Your task to perform on an android device: manage bookmarks in the chrome app Image 0: 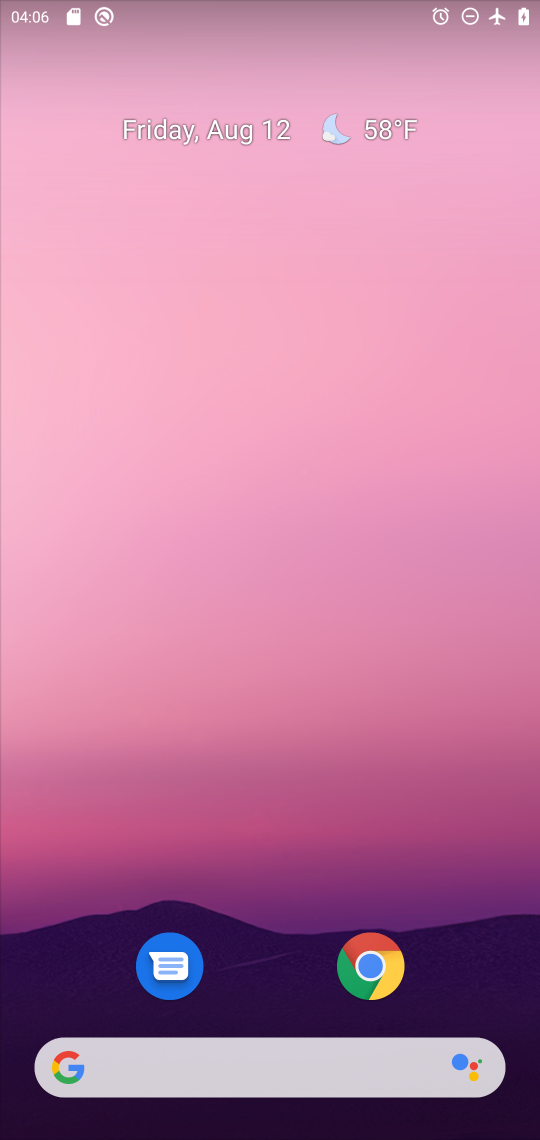
Step 0: drag from (255, 943) to (263, 155)
Your task to perform on an android device: manage bookmarks in the chrome app Image 1: 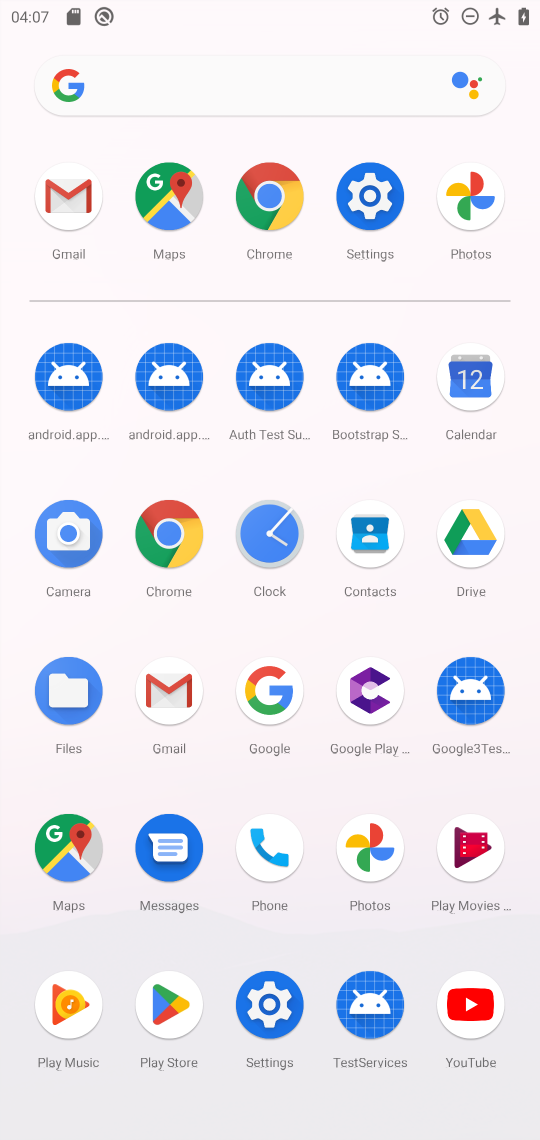
Step 1: click (155, 531)
Your task to perform on an android device: manage bookmarks in the chrome app Image 2: 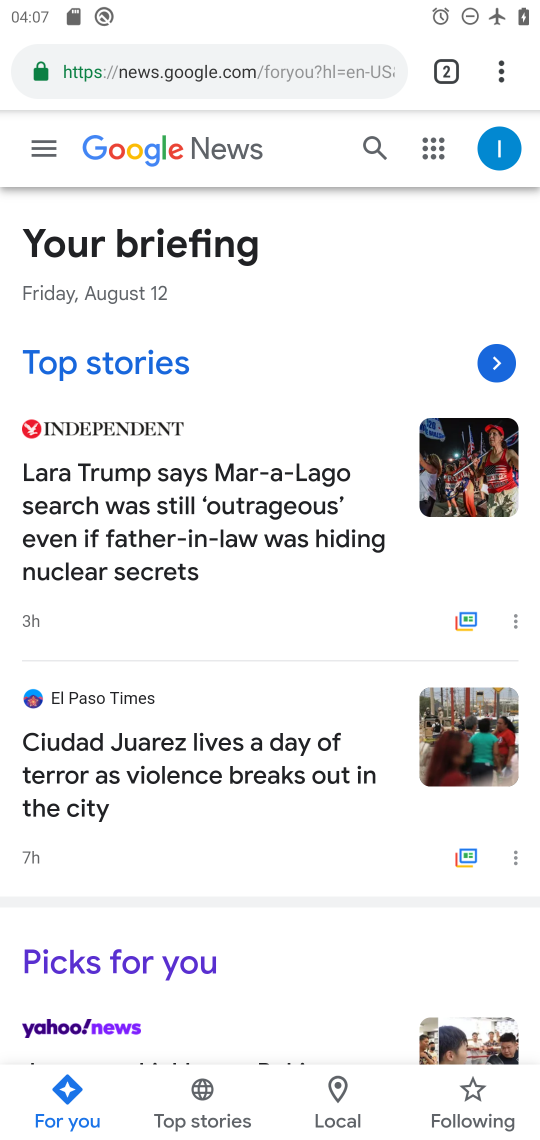
Step 2: drag from (512, 71) to (272, 261)
Your task to perform on an android device: manage bookmarks in the chrome app Image 3: 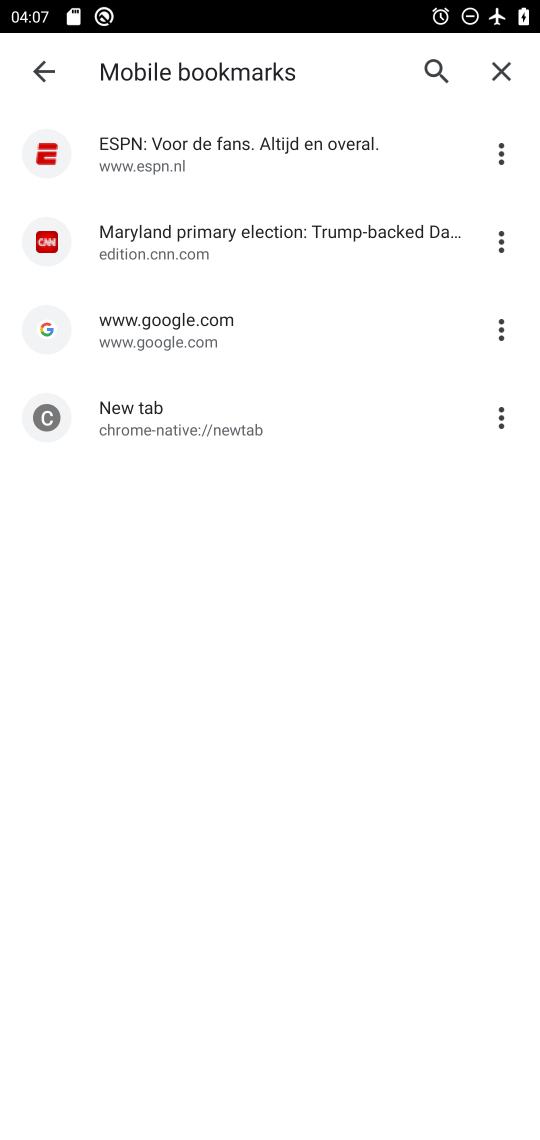
Step 3: click (502, 322)
Your task to perform on an android device: manage bookmarks in the chrome app Image 4: 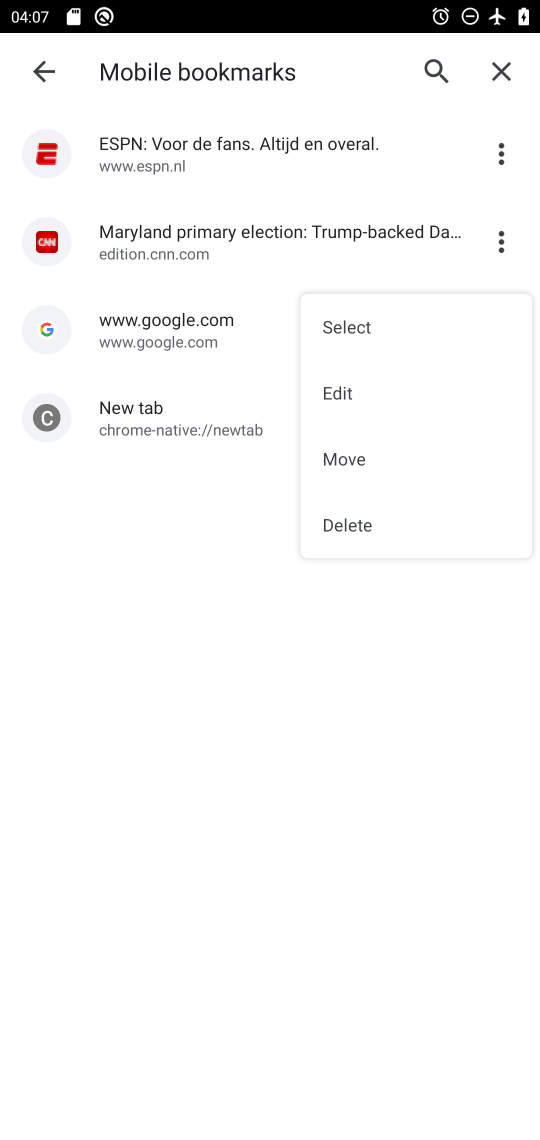
Step 4: click (356, 396)
Your task to perform on an android device: manage bookmarks in the chrome app Image 5: 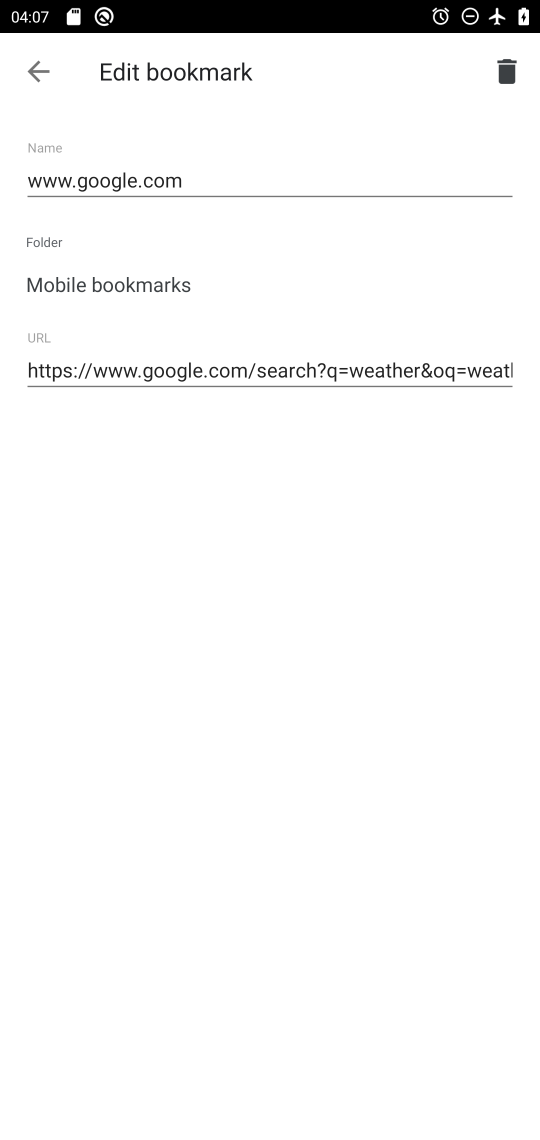
Step 5: click (235, 179)
Your task to perform on an android device: manage bookmarks in the chrome app Image 6: 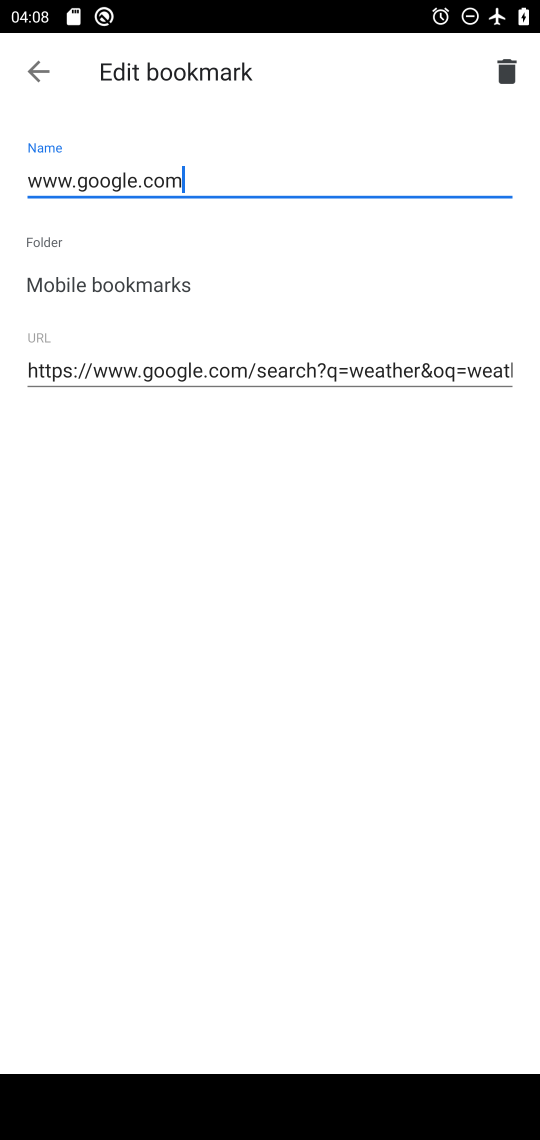
Step 6: type " jol"
Your task to perform on an android device: manage bookmarks in the chrome app Image 7: 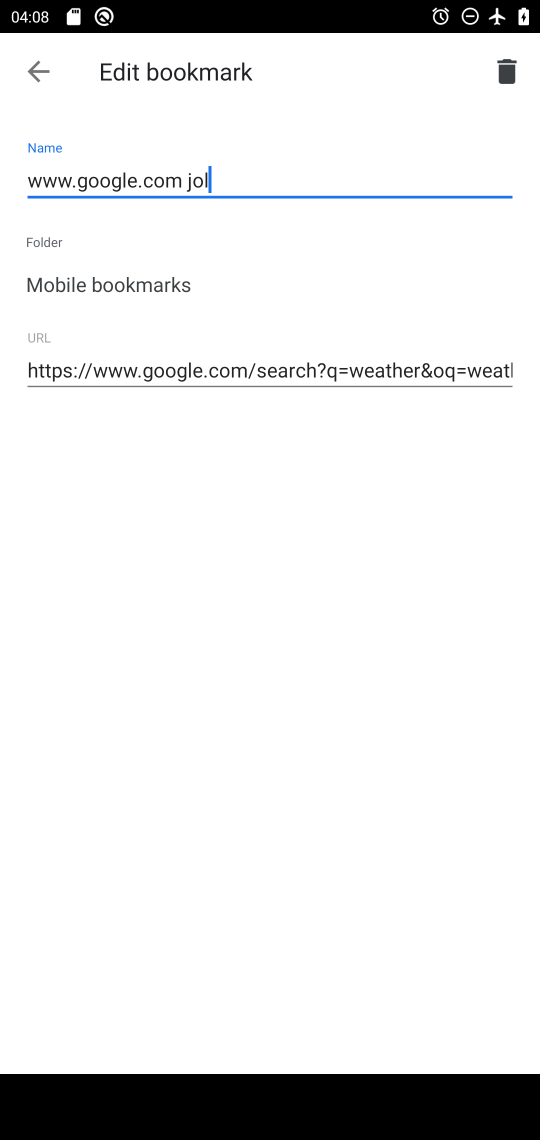
Step 7: click (31, 67)
Your task to perform on an android device: manage bookmarks in the chrome app Image 8: 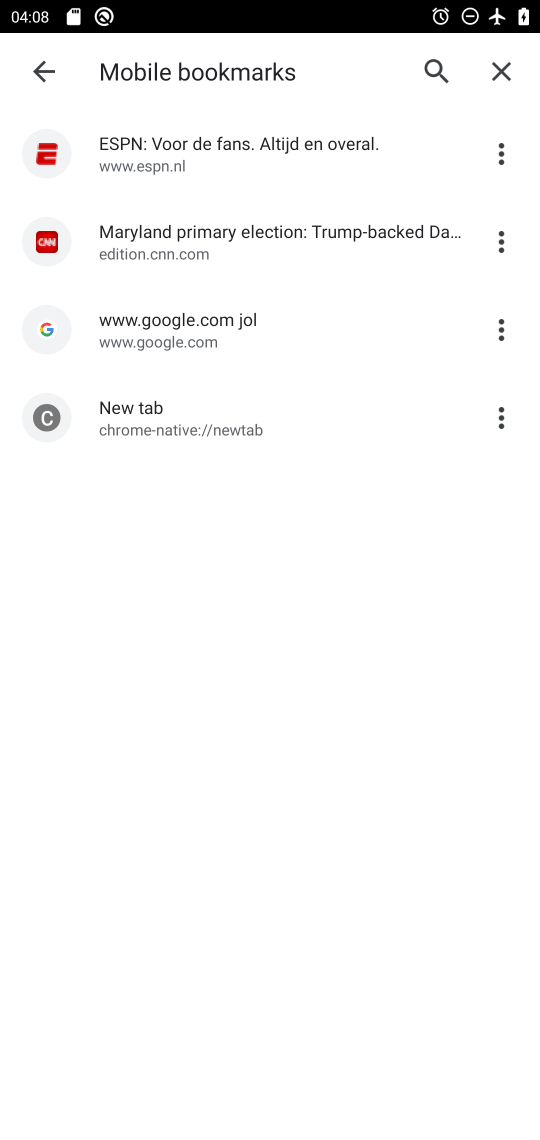
Step 8: task complete